Your task to perform on an android device: Open Amazon Image 0: 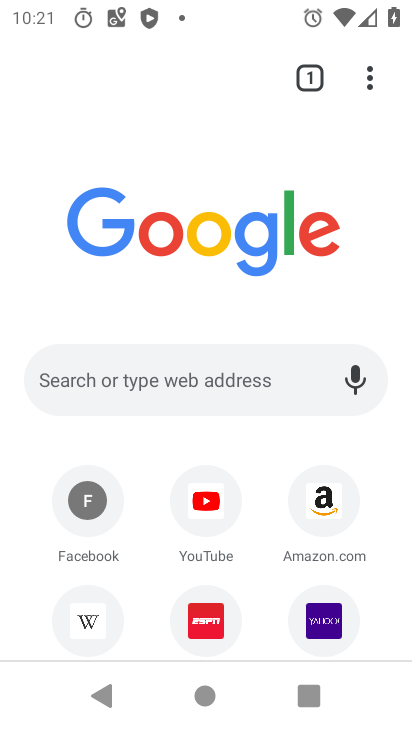
Step 0: click (326, 503)
Your task to perform on an android device: Open Amazon Image 1: 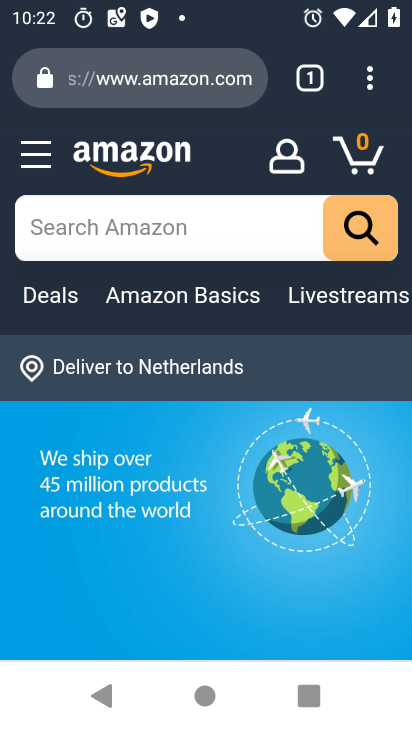
Step 1: task complete